Your task to perform on an android device: Open Android settings Image 0: 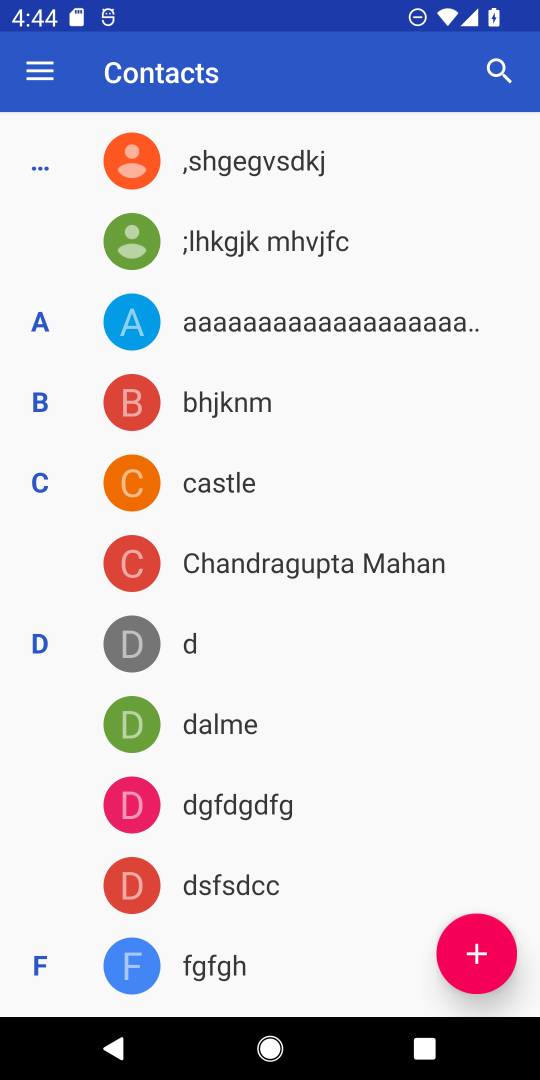
Step 0: press home button
Your task to perform on an android device: Open Android settings Image 1: 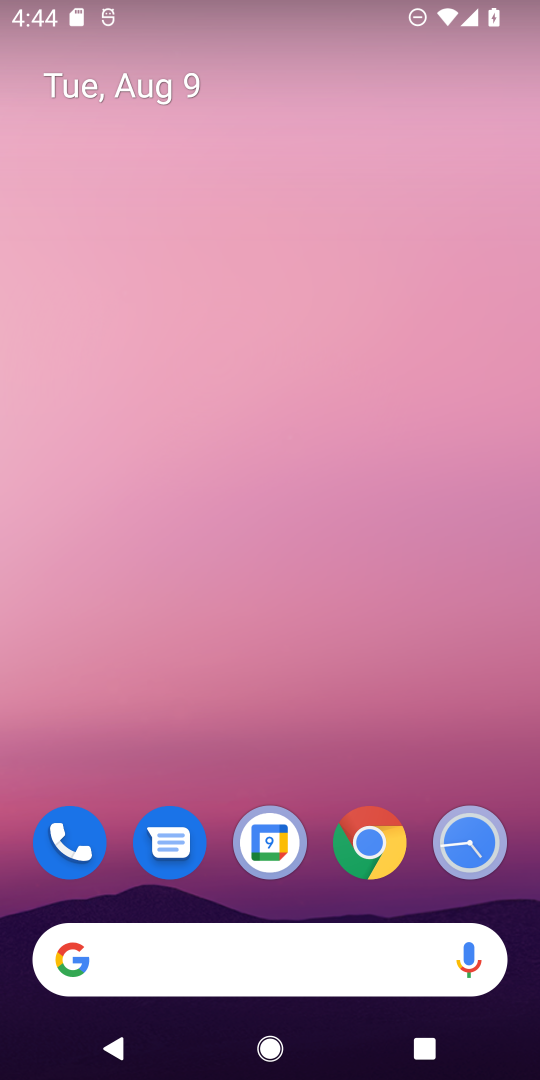
Step 1: drag from (244, 969) to (336, 152)
Your task to perform on an android device: Open Android settings Image 2: 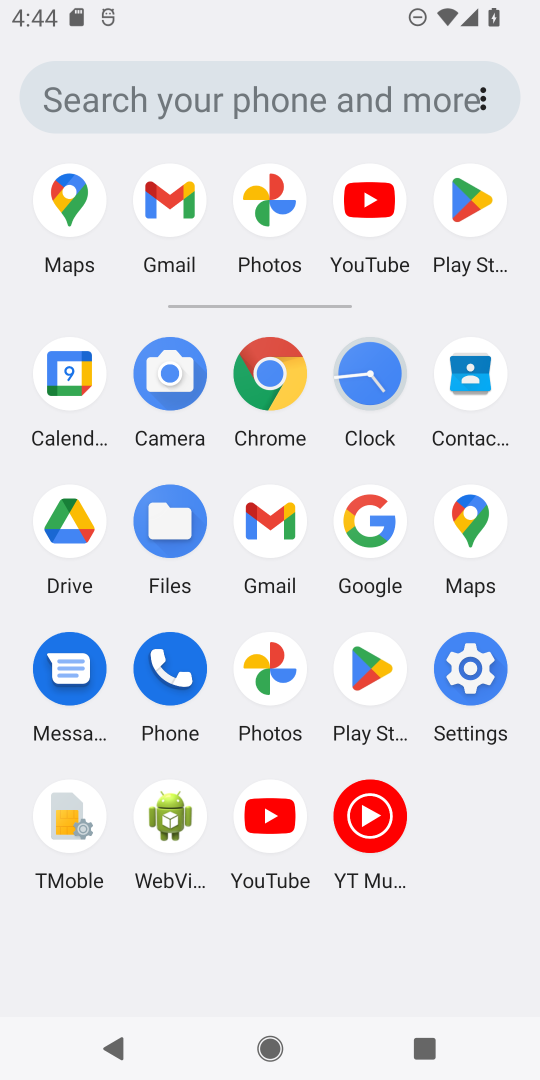
Step 2: click (463, 678)
Your task to perform on an android device: Open Android settings Image 3: 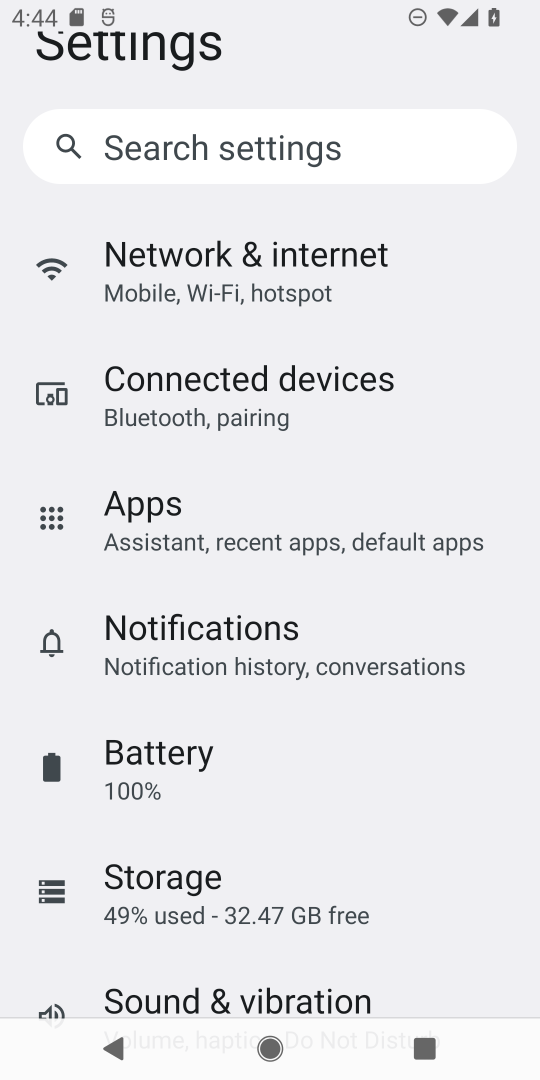
Step 3: drag from (394, 974) to (467, 511)
Your task to perform on an android device: Open Android settings Image 4: 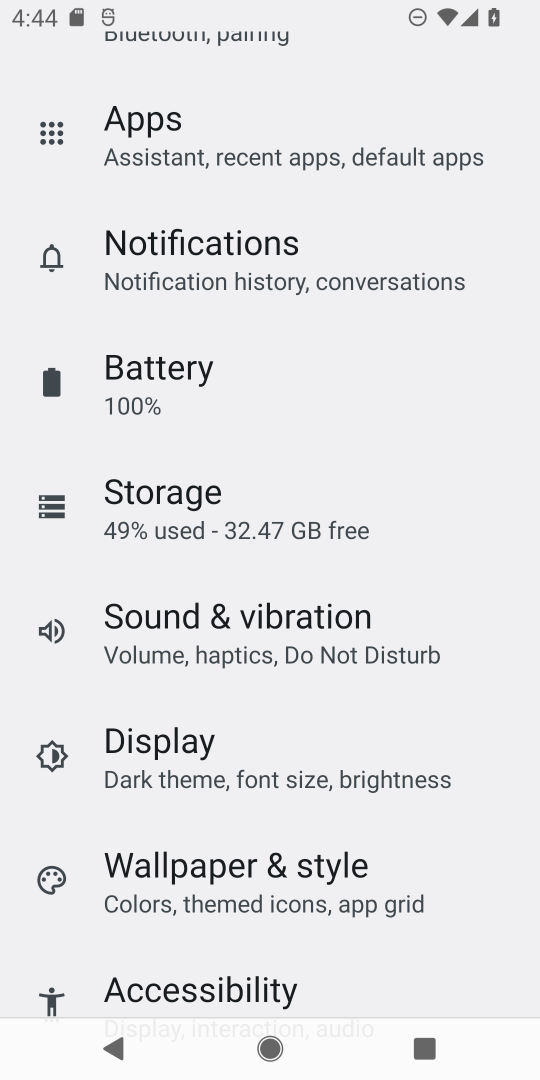
Step 4: drag from (503, 867) to (420, 30)
Your task to perform on an android device: Open Android settings Image 5: 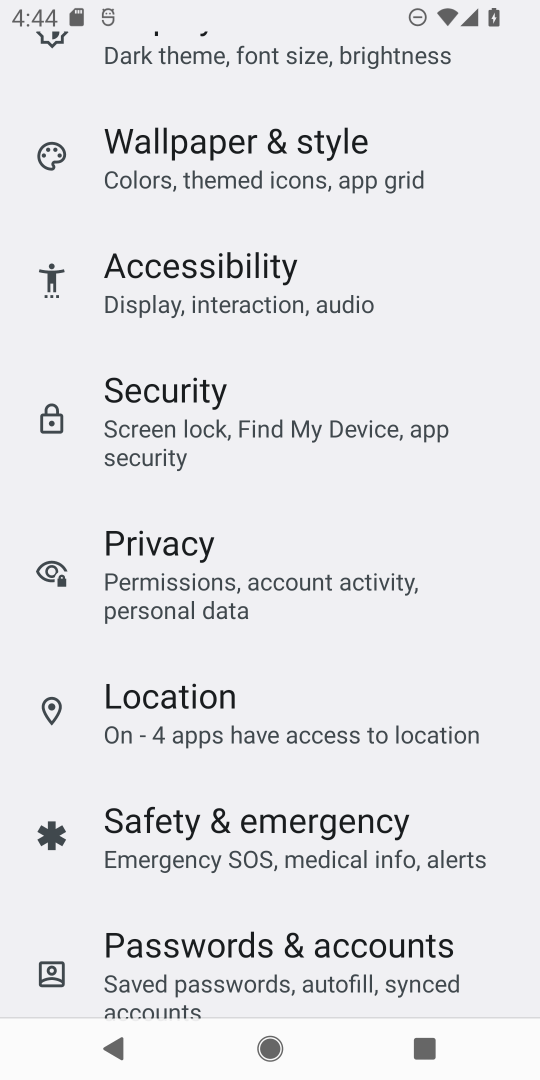
Step 5: drag from (514, 904) to (489, 485)
Your task to perform on an android device: Open Android settings Image 6: 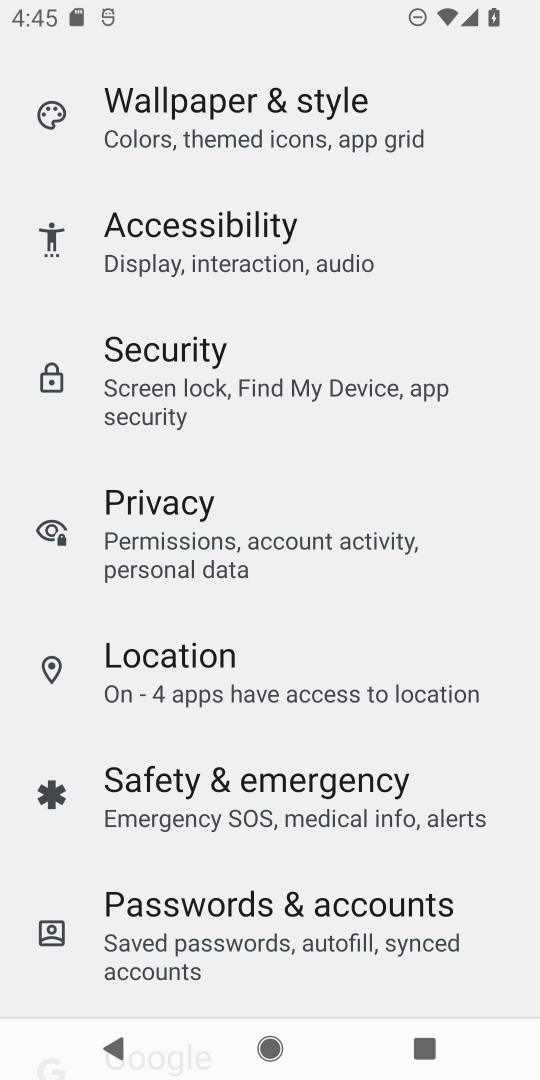
Step 6: drag from (499, 922) to (464, 286)
Your task to perform on an android device: Open Android settings Image 7: 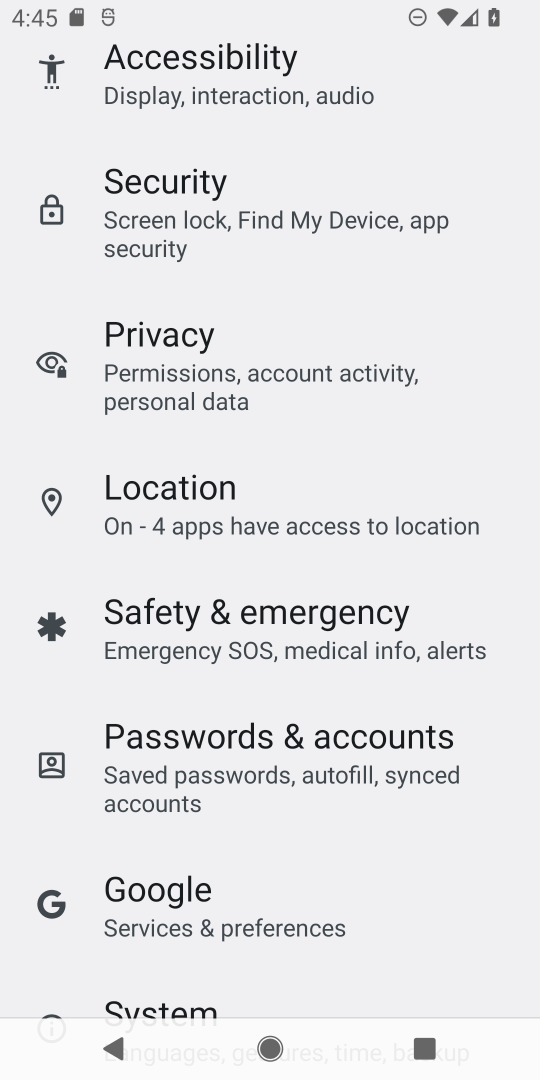
Step 7: drag from (483, 921) to (405, 145)
Your task to perform on an android device: Open Android settings Image 8: 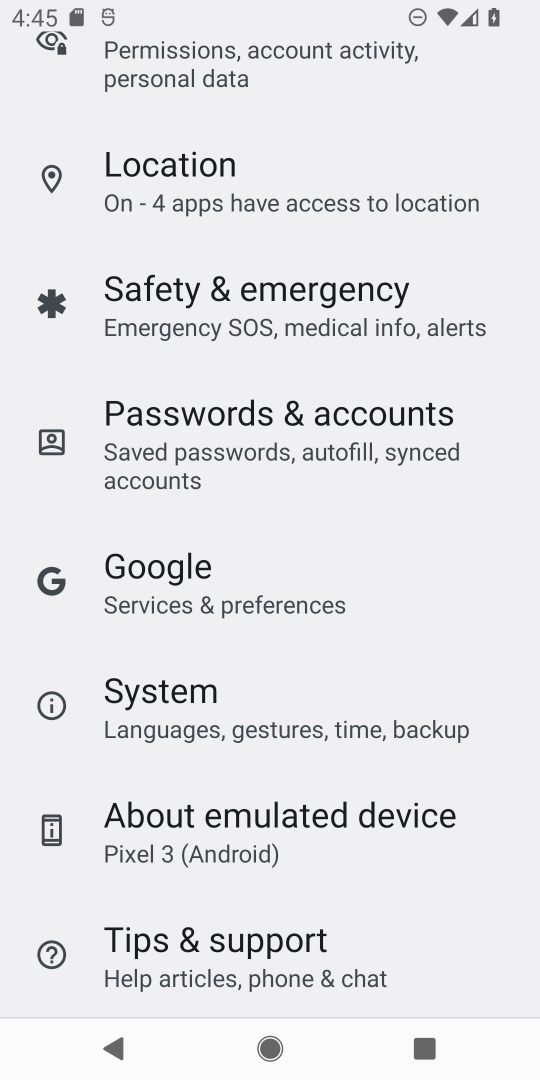
Step 8: click (366, 840)
Your task to perform on an android device: Open Android settings Image 9: 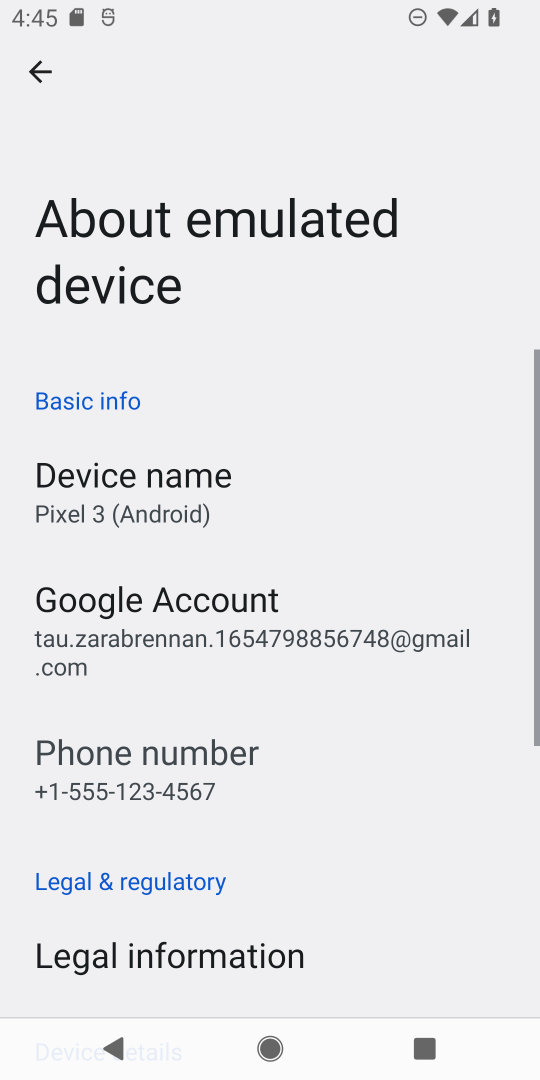
Step 9: task complete